Your task to perform on an android device: Add "logitech g pro" to the cart on newegg Image 0: 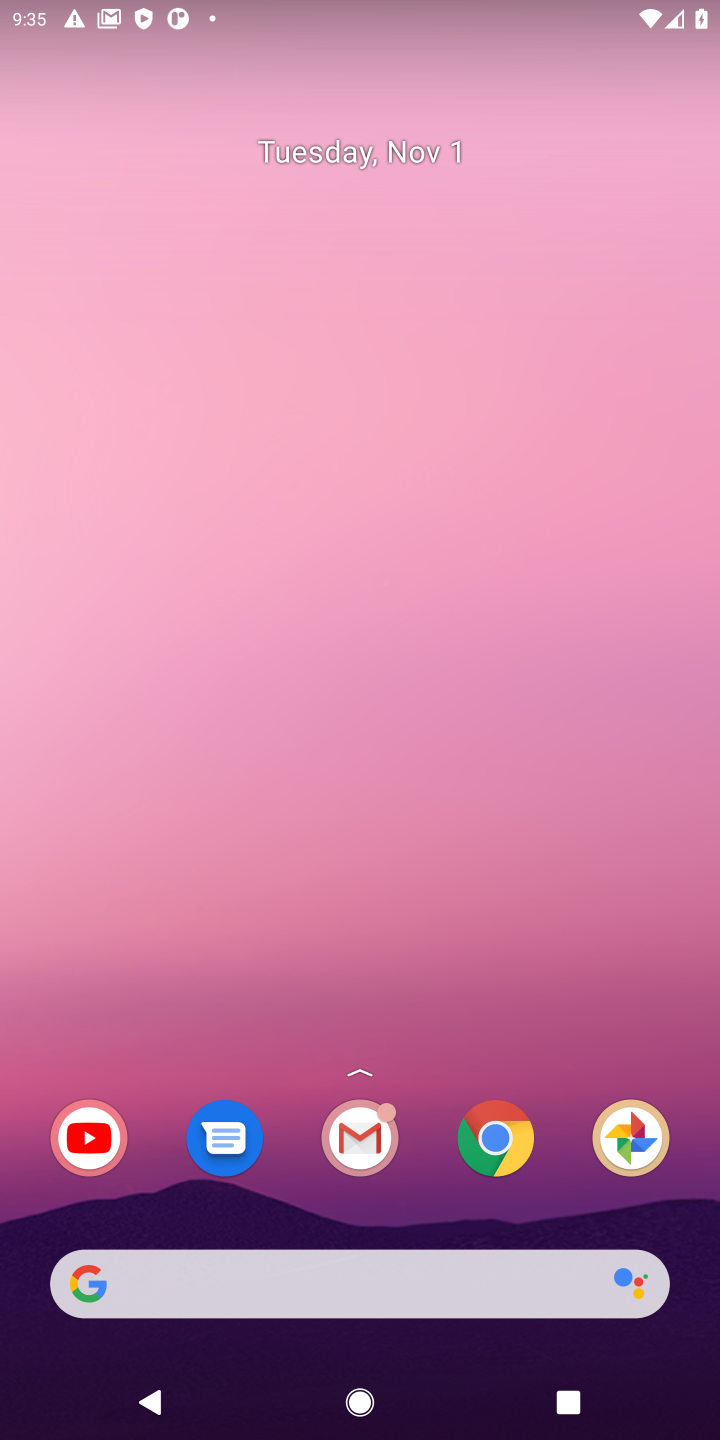
Step 0: click (503, 1150)
Your task to perform on an android device: Add "logitech g pro" to the cart on newegg Image 1: 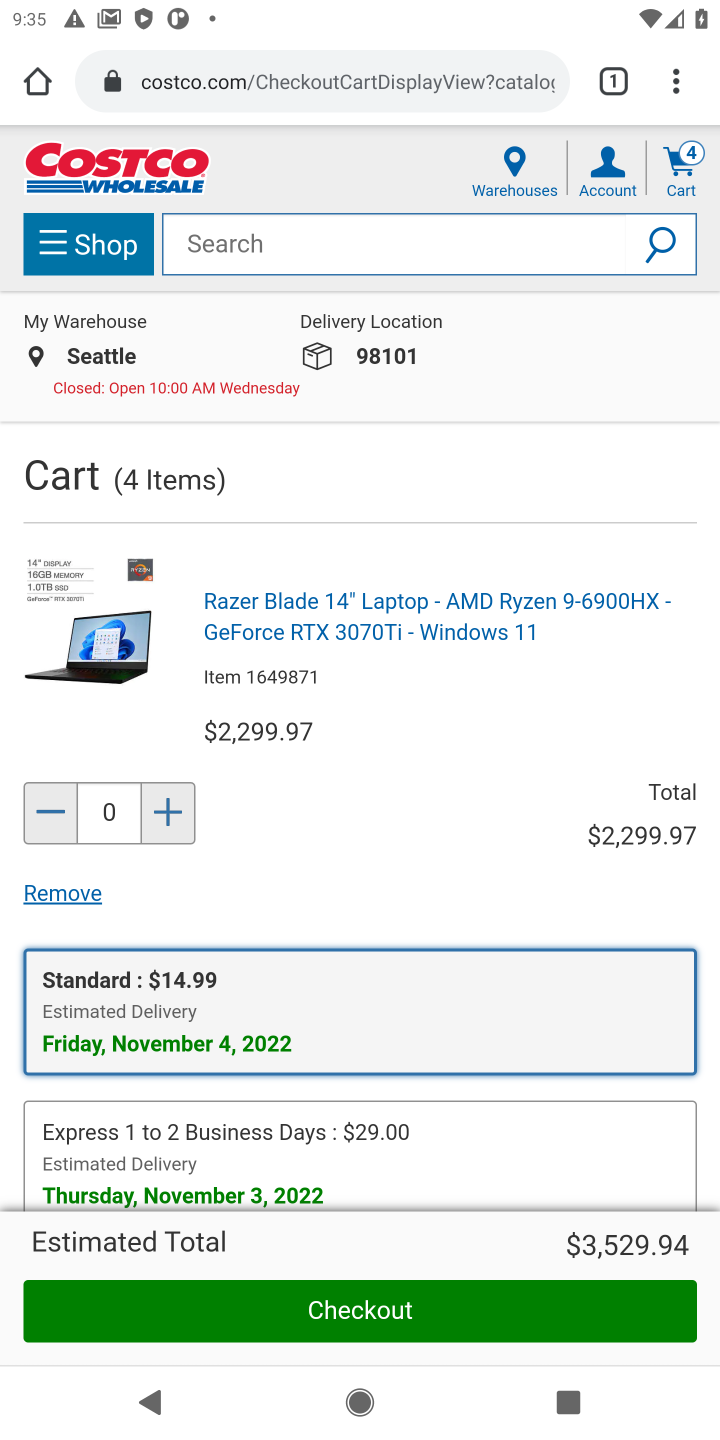
Step 1: click (242, 95)
Your task to perform on an android device: Add "logitech g pro" to the cart on newegg Image 2: 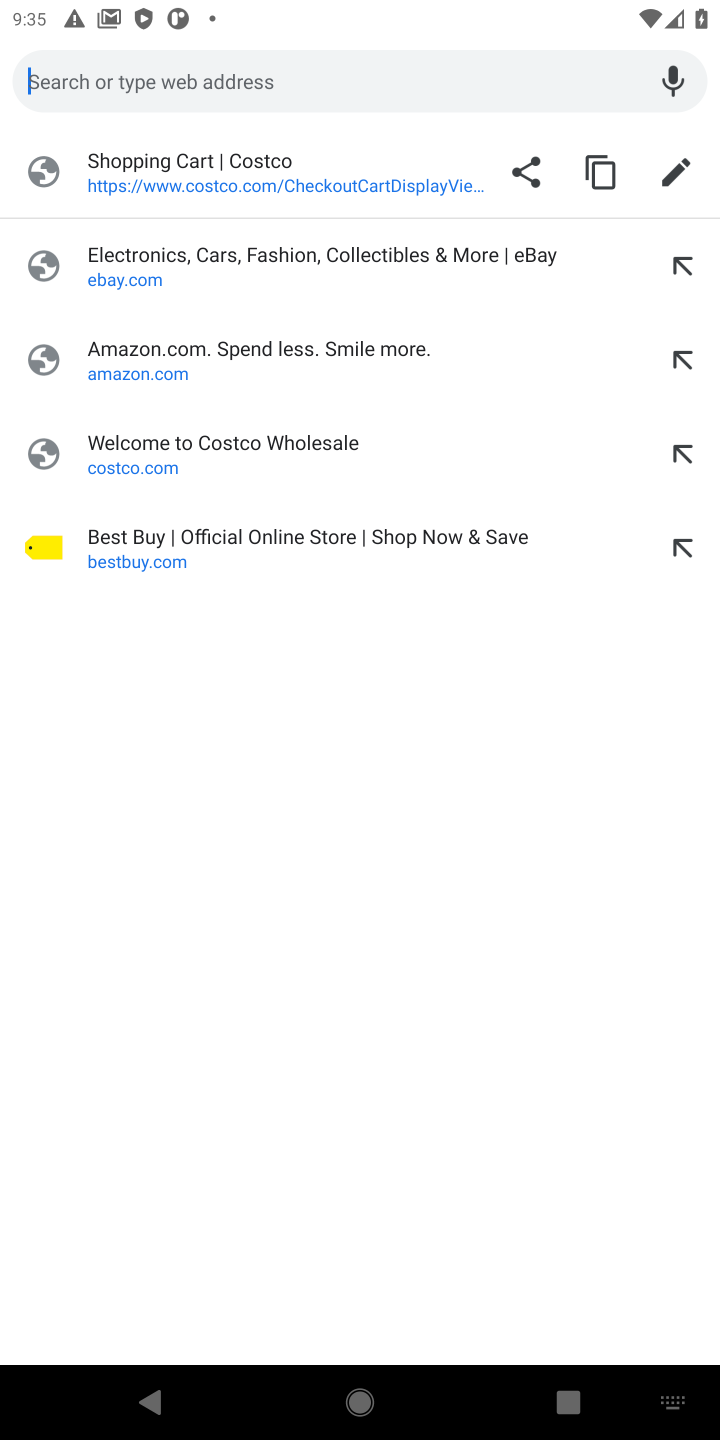
Step 2: type "newegg.com"
Your task to perform on an android device: Add "logitech g pro" to the cart on newegg Image 3: 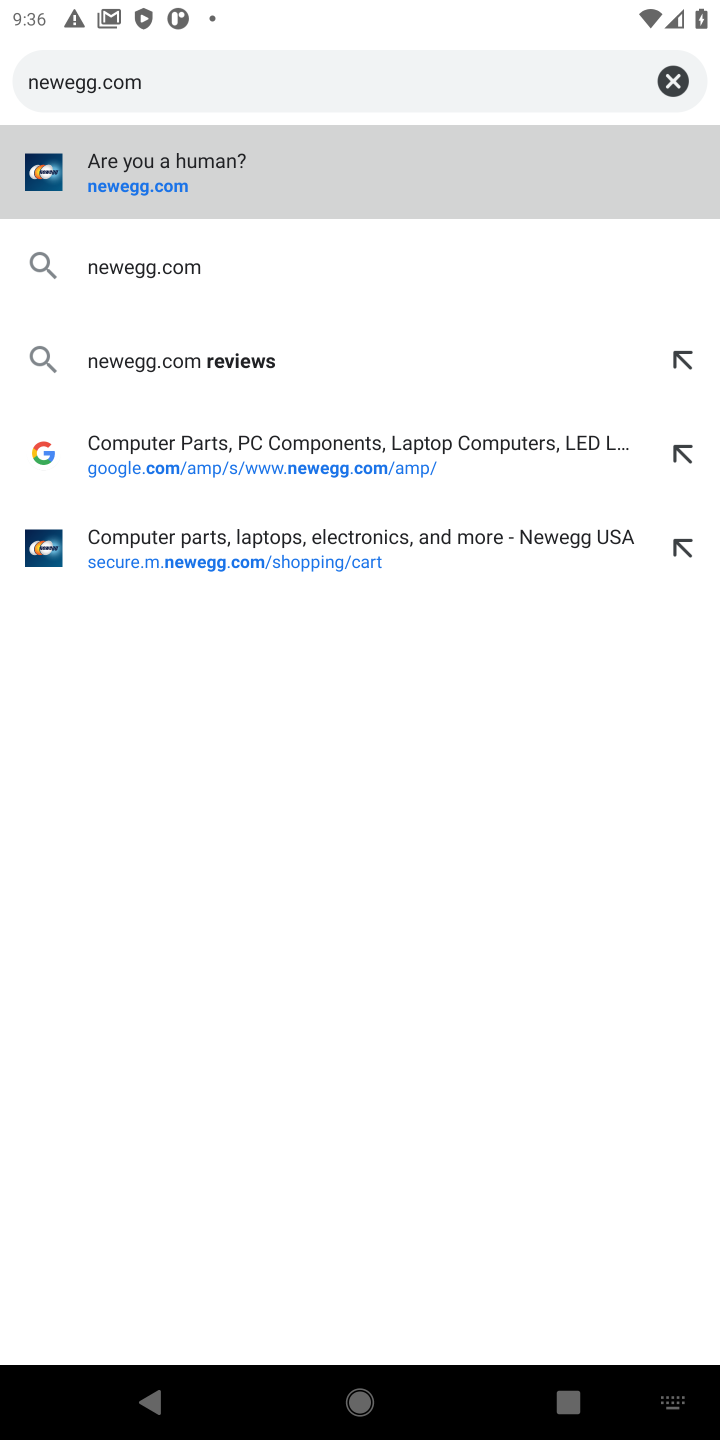
Step 3: click (77, 271)
Your task to perform on an android device: Add "logitech g pro" to the cart on newegg Image 4: 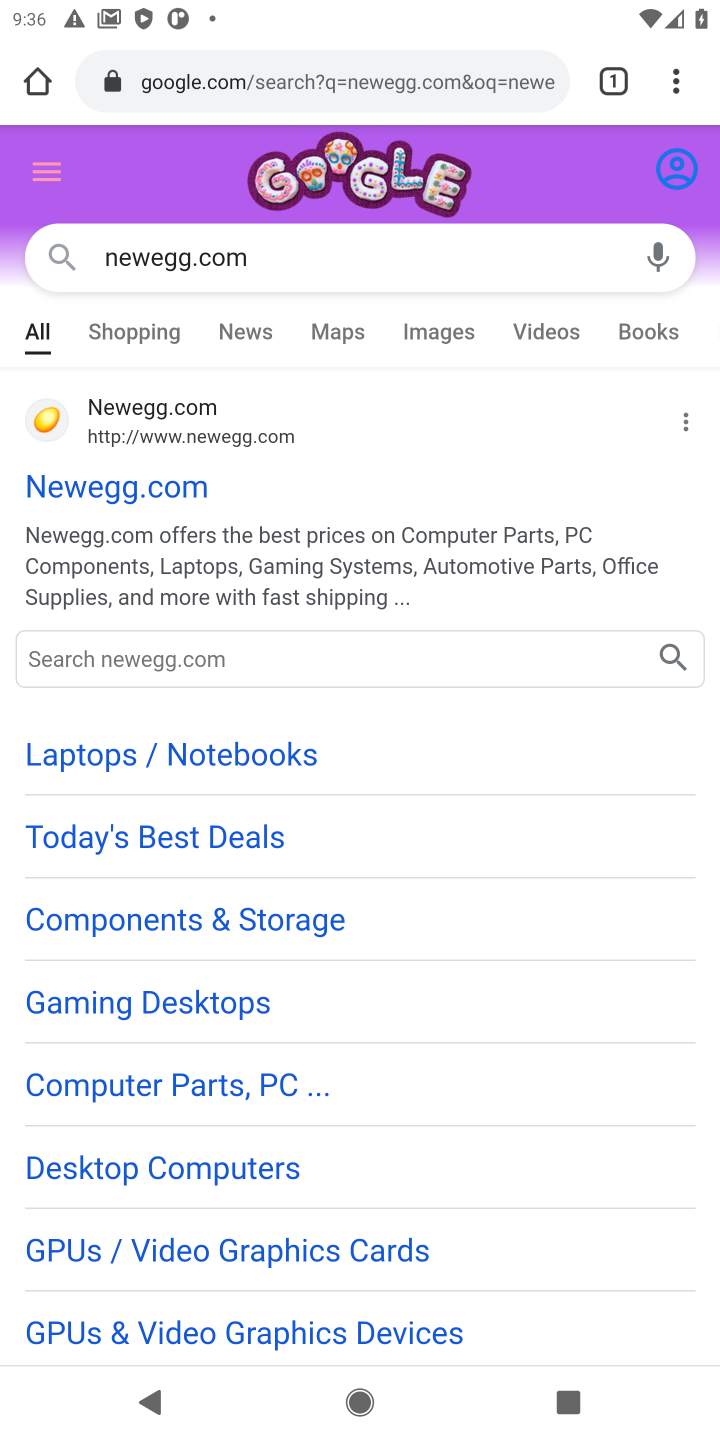
Step 4: click (145, 498)
Your task to perform on an android device: Add "logitech g pro" to the cart on newegg Image 5: 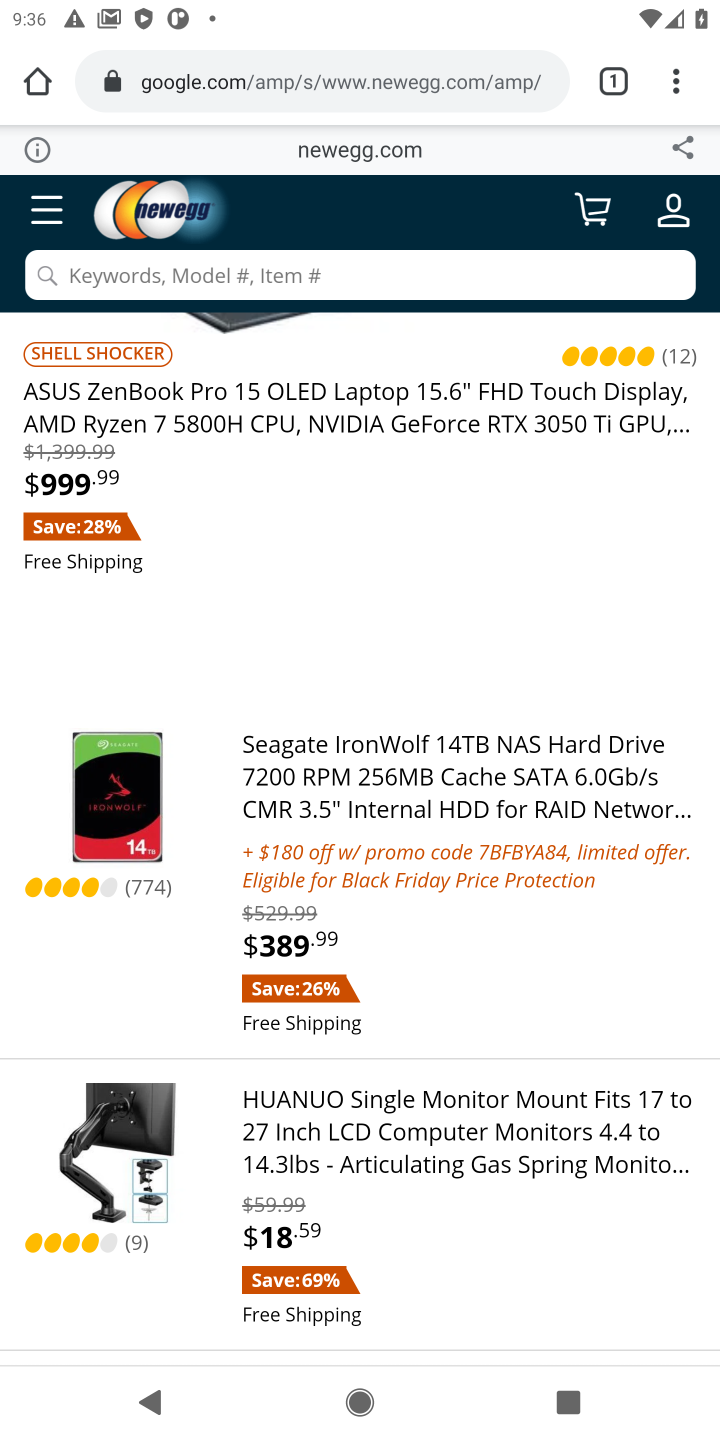
Step 5: click (162, 278)
Your task to perform on an android device: Add "logitech g pro" to the cart on newegg Image 6: 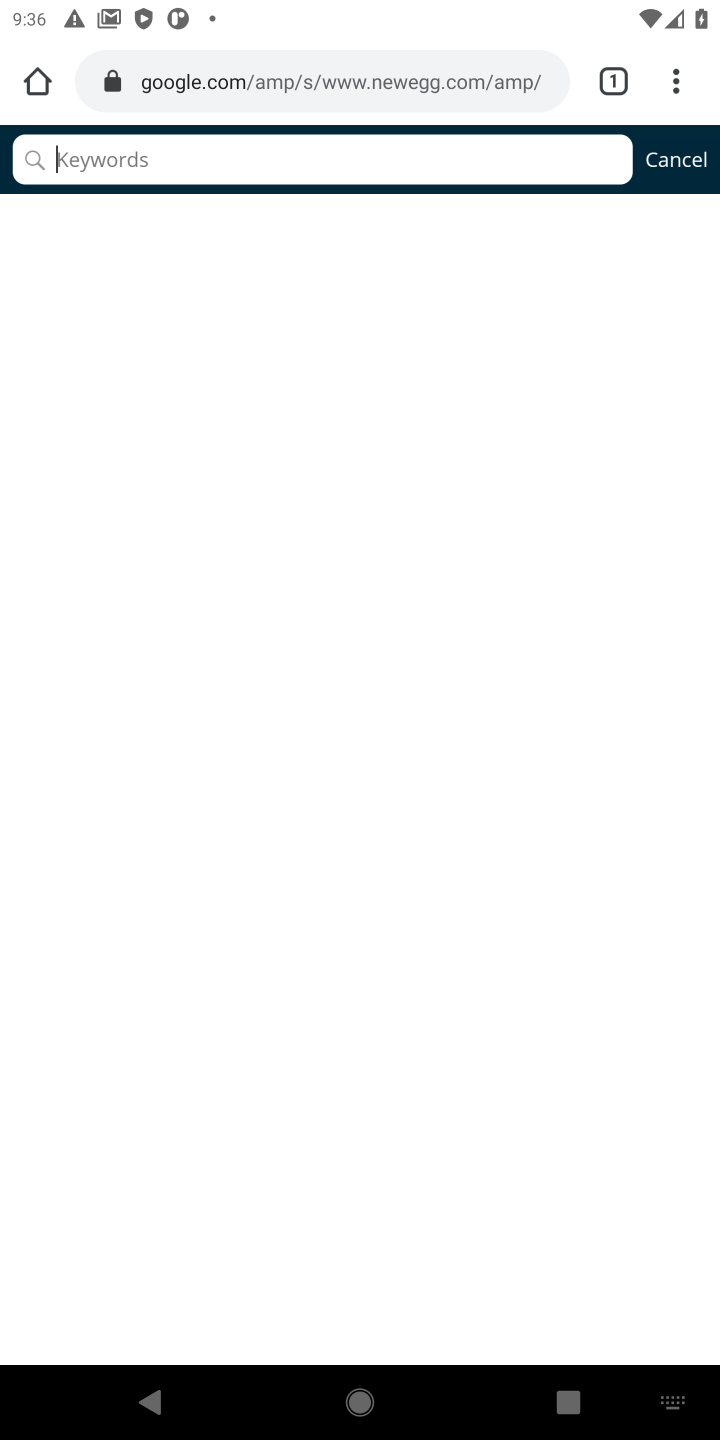
Step 6: type "logitech g pro"
Your task to perform on an android device: Add "logitech g pro" to the cart on newegg Image 7: 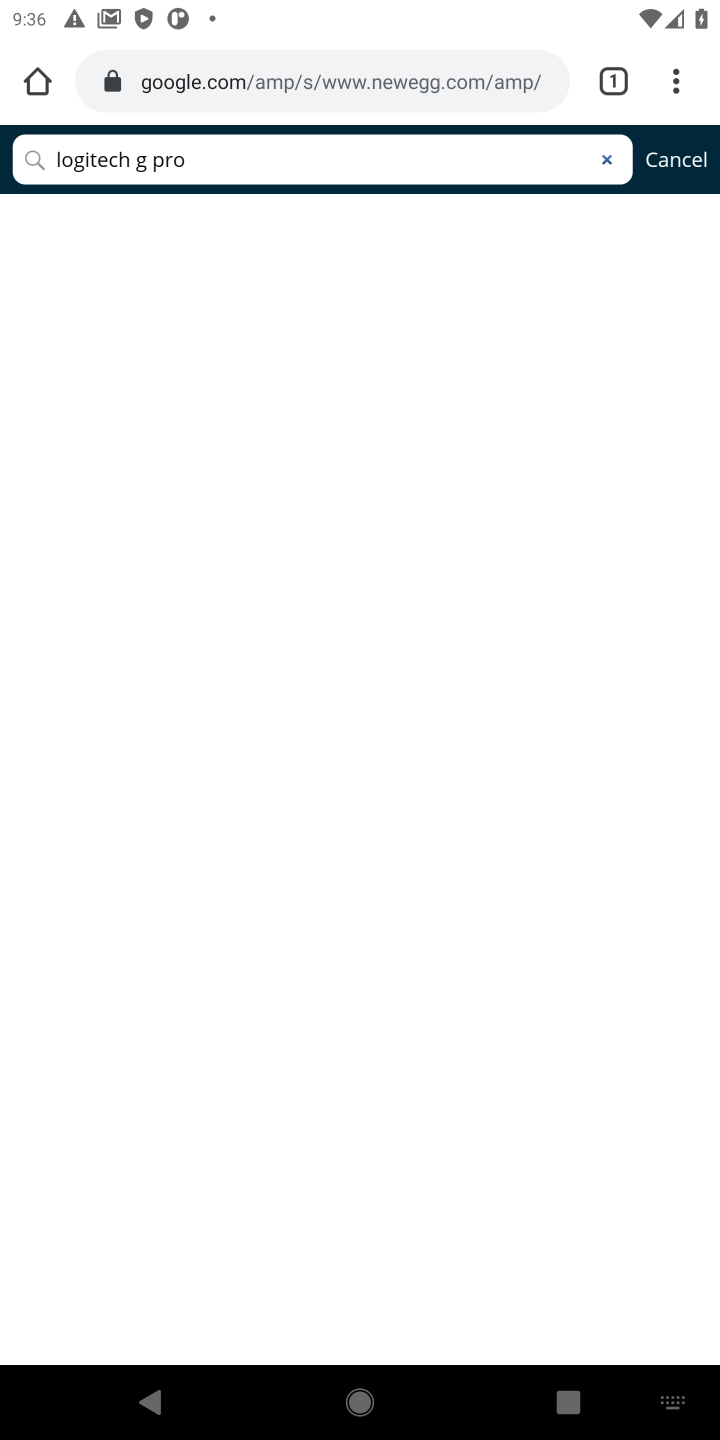
Step 7: click (36, 160)
Your task to perform on an android device: Add "logitech g pro" to the cart on newegg Image 8: 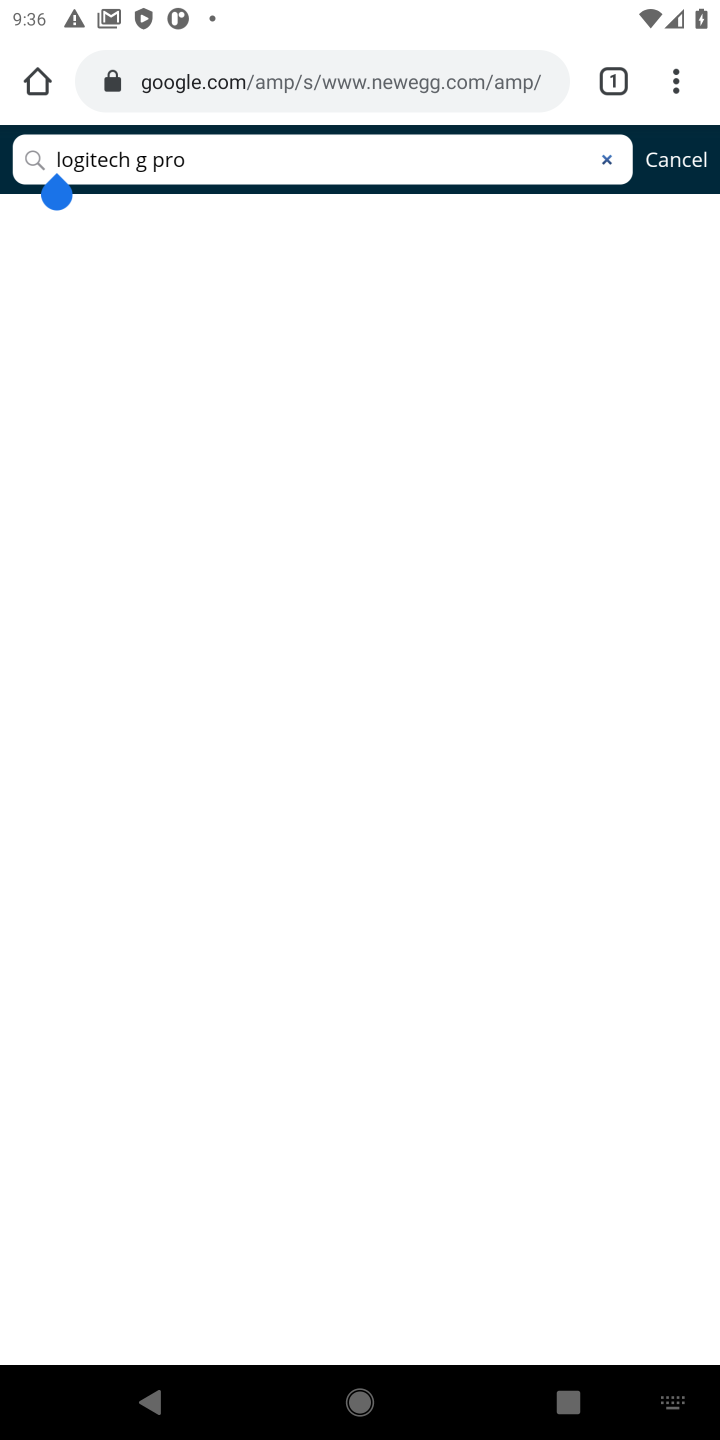
Step 8: task complete